Your task to perform on an android device: Open ESPN.com Image 0: 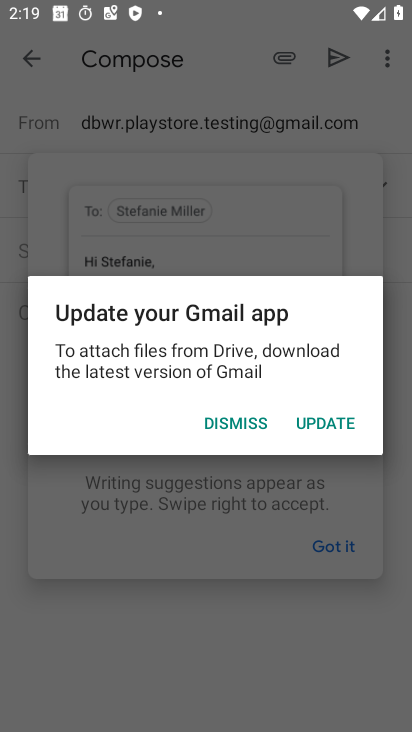
Step 0: press home button
Your task to perform on an android device: Open ESPN.com Image 1: 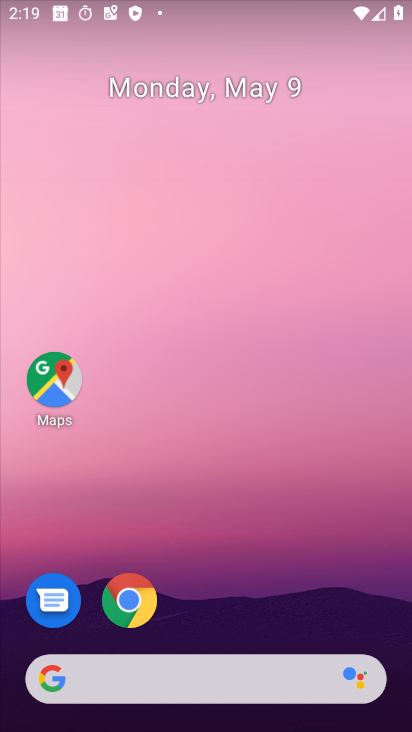
Step 1: drag from (251, 606) to (243, 238)
Your task to perform on an android device: Open ESPN.com Image 2: 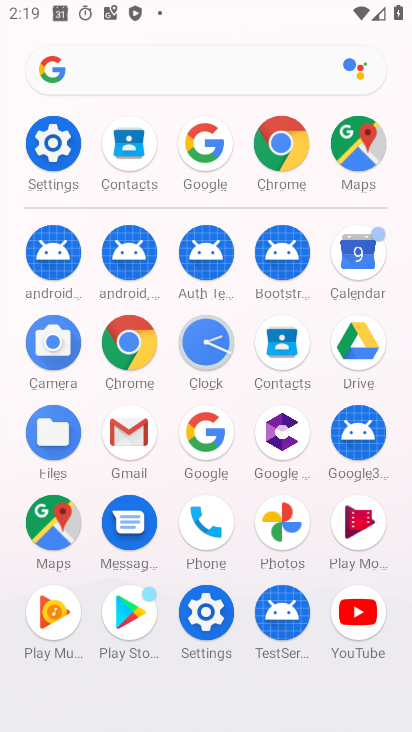
Step 2: click (139, 350)
Your task to perform on an android device: Open ESPN.com Image 3: 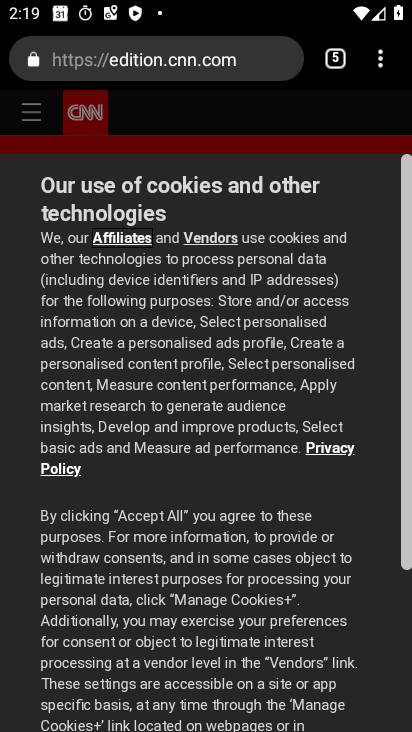
Step 3: task complete